Your task to perform on an android device: Go to Google Image 0: 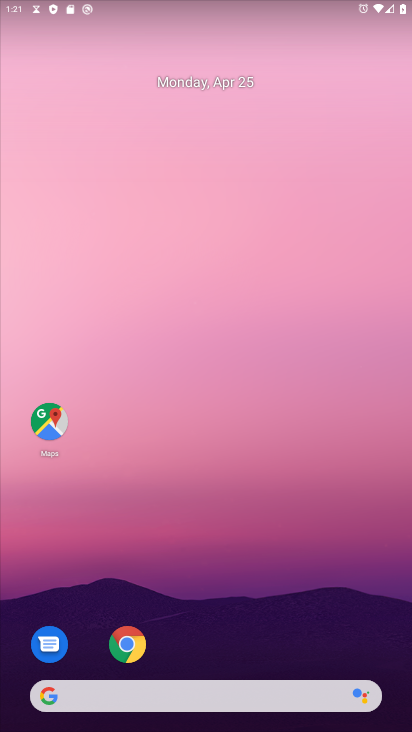
Step 0: drag from (310, 642) to (285, 6)
Your task to perform on an android device: Go to Google Image 1: 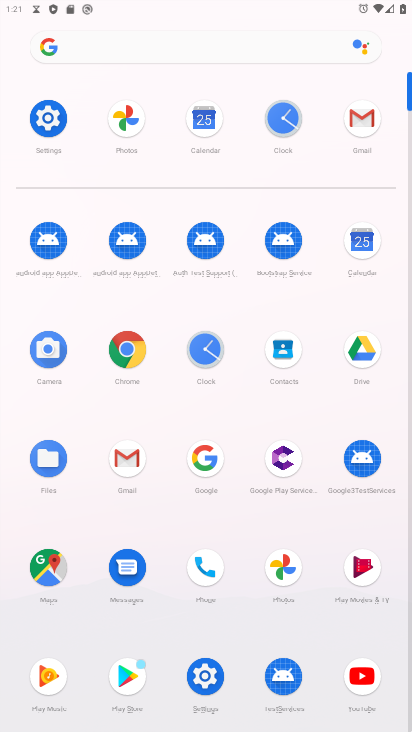
Step 1: click (207, 463)
Your task to perform on an android device: Go to Google Image 2: 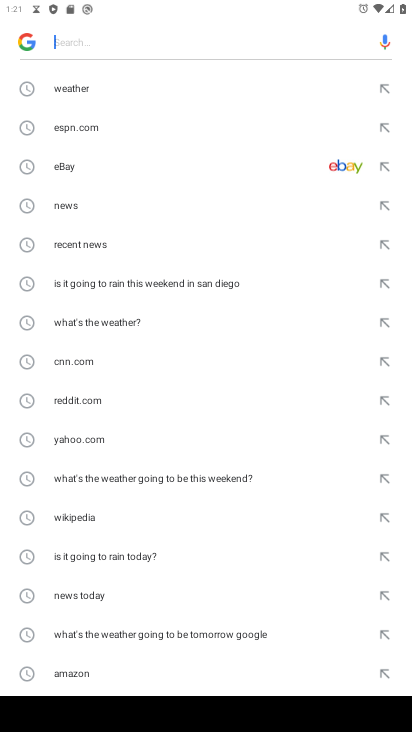
Step 2: task complete